Your task to perform on an android device: Search for Mexican restaurants on Maps Image 0: 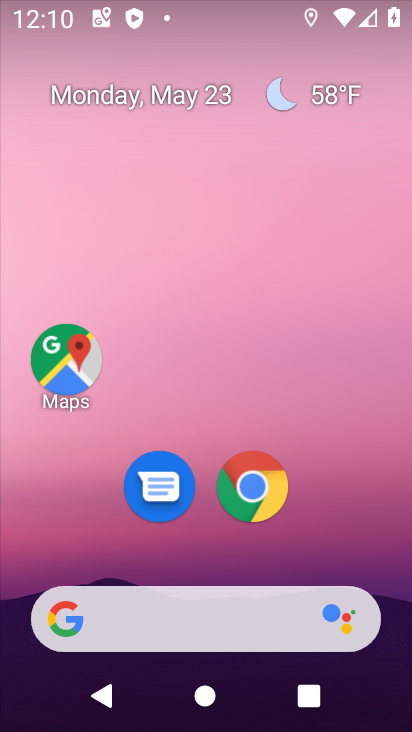
Step 0: click (67, 360)
Your task to perform on an android device: Search for Mexican restaurants on Maps Image 1: 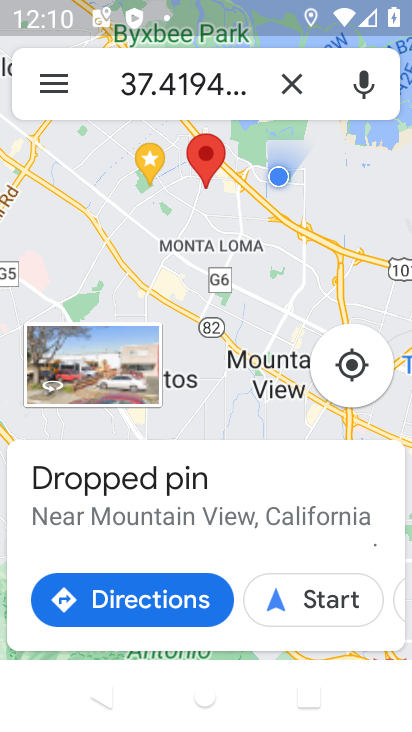
Step 1: click (286, 78)
Your task to perform on an android device: Search for Mexican restaurants on Maps Image 2: 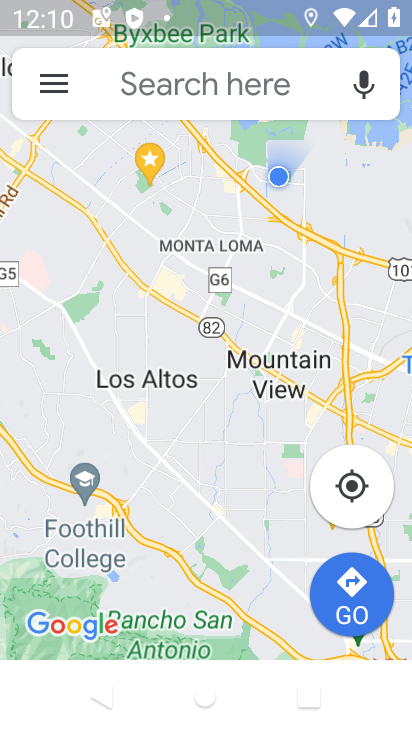
Step 2: click (182, 87)
Your task to perform on an android device: Search for Mexican restaurants on Maps Image 3: 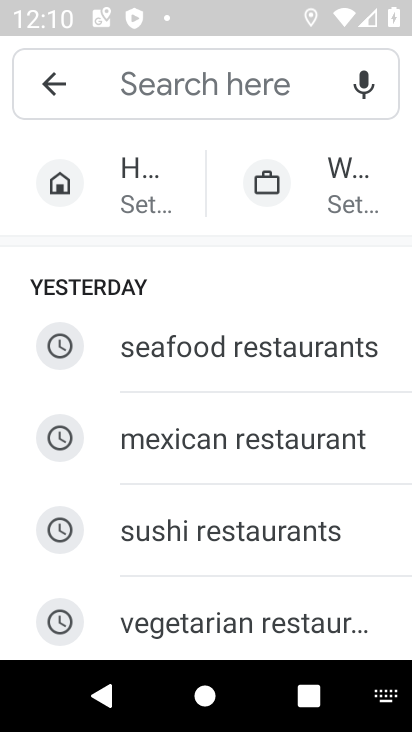
Step 3: type "mexican restaurants"
Your task to perform on an android device: Search for Mexican restaurants on Maps Image 4: 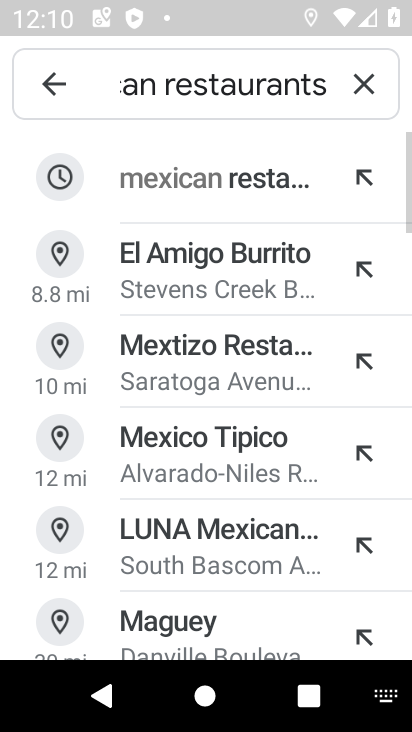
Step 4: click (202, 190)
Your task to perform on an android device: Search for Mexican restaurants on Maps Image 5: 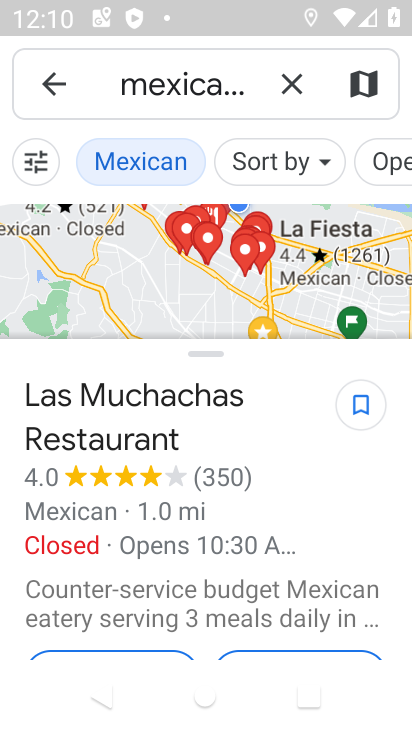
Step 5: task complete